Your task to perform on an android device: turn on bluetooth scan Image 0: 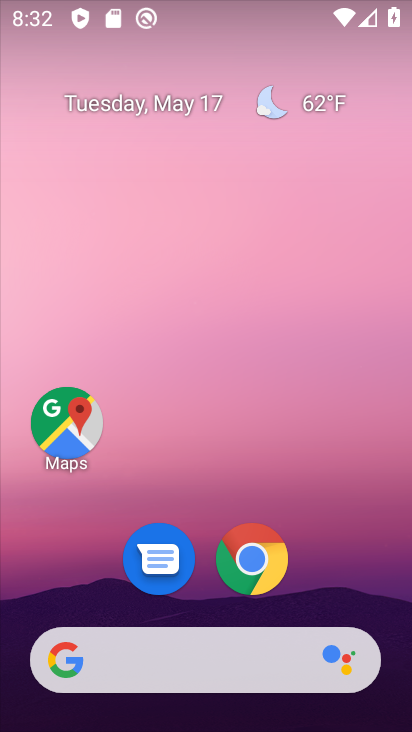
Step 0: drag from (272, 639) to (241, 68)
Your task to perform on an android device: turn on bluetooth scan Image 1: 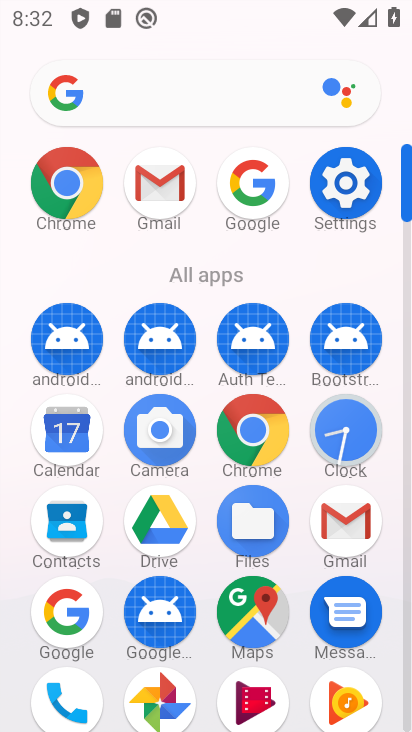
Step 1: click (364, 182)
Your task to perform on an android device: turn on bluetooth scan Image 2: 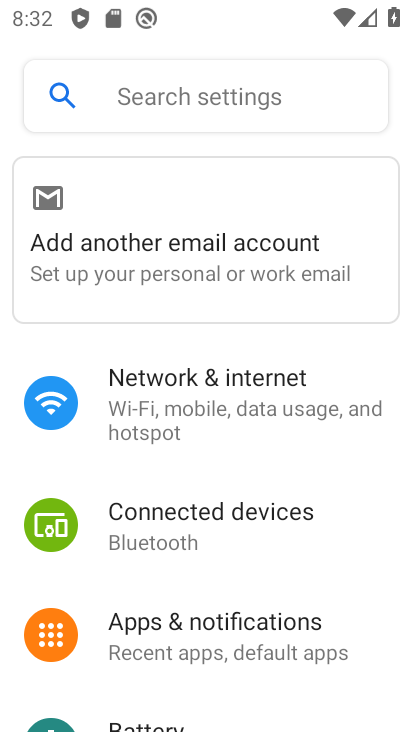
Step 2: drag from (213, 576) to (224, 74)
Your task to perform on an android device: turn on bluetooth scan Image 3: 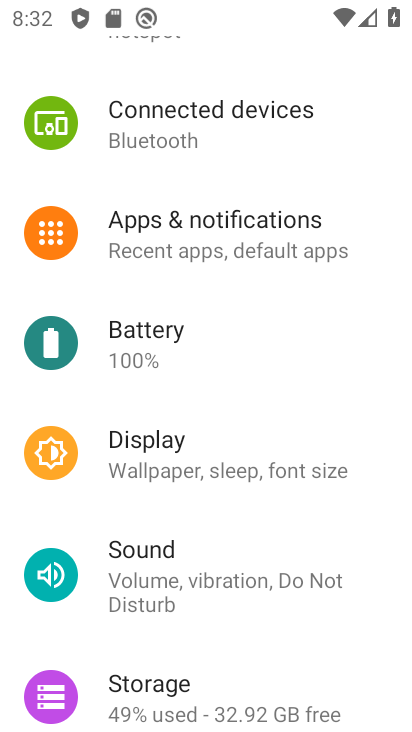
Step 3: drag from (157, 612) to (168, 312)
Your task to perform on an android device: turn on bluetooth scan Image 4: 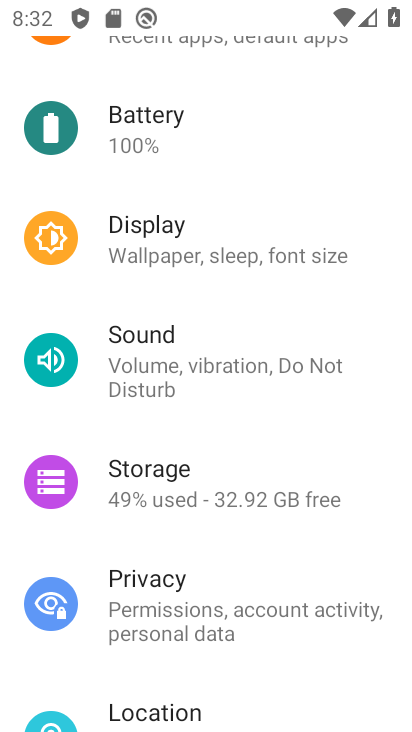
Step 4: drag from (165, 658) to (225, 317)
Your task to perform on an android device: turn on bluetooth scan Image 5: 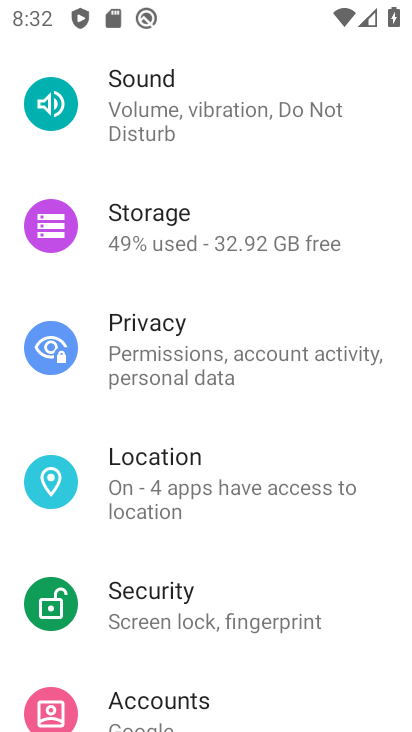
Step 5: click (129, 464)
Your task to perform on an android device: turn on bluetooth scan Image 6: 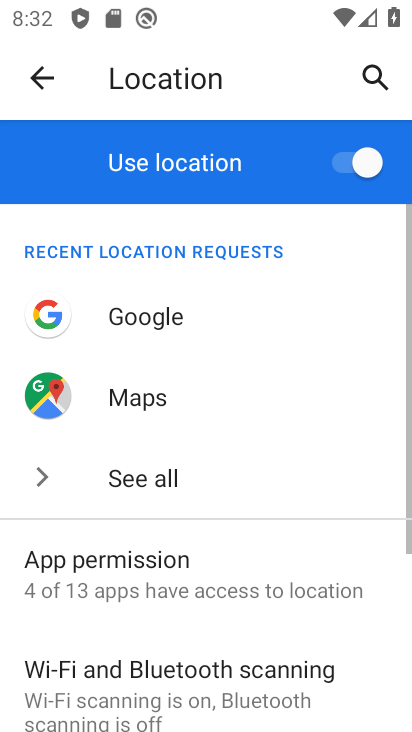
Step 6: click (197, 682)
Your task to perform on an android device: turn on bluetooth scan Image 7: 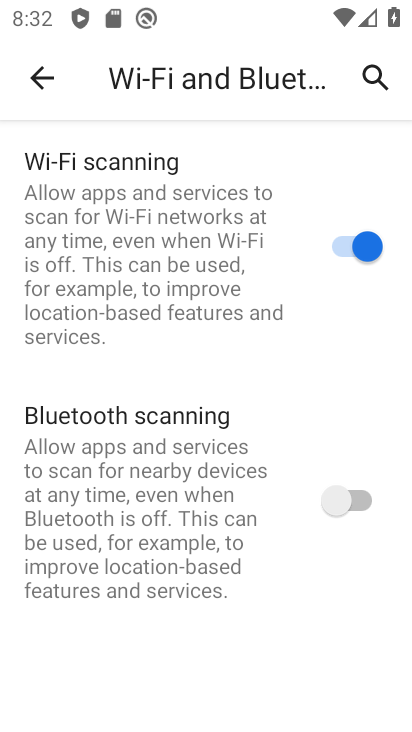
Step 7: click (346, 515)
Your task to perform on an android device: turn on bluetooth scan Image 8: 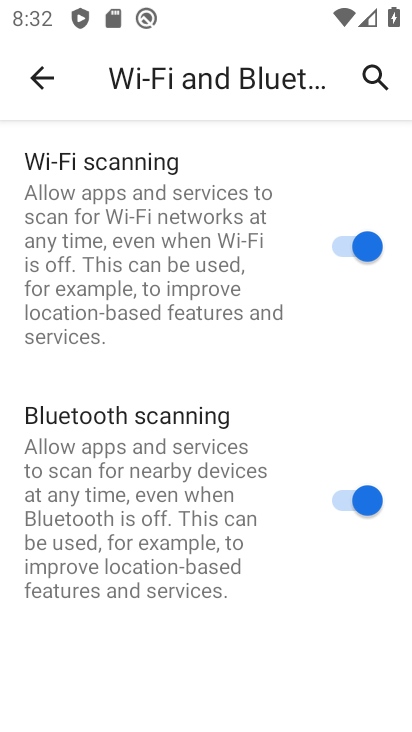
Step 8: task complete